Your task to perform on an android device: What is the news today? Image 0: 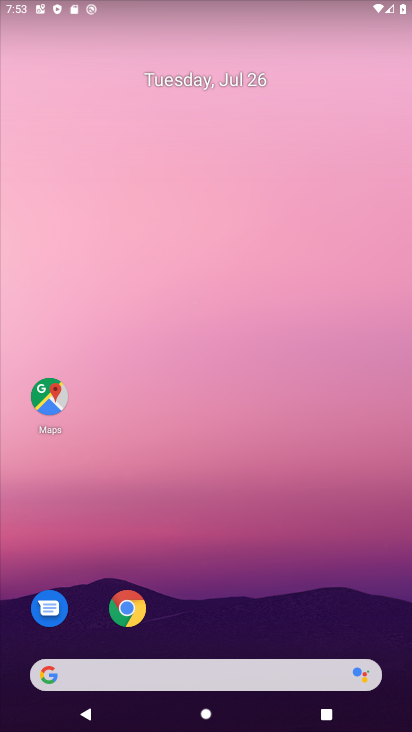
Step 0: click (114, 668)
Your task to perform on an android device: What is the news today? Image 1: 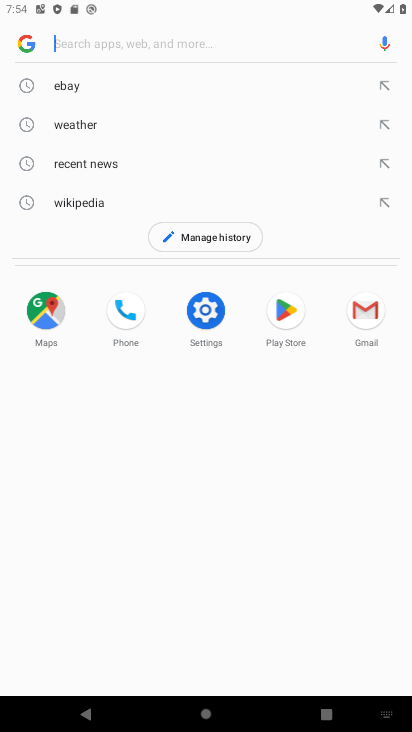
Step 1: type "What is the news today?"
Your task to perform on an android device: What is the news today? Image 2: 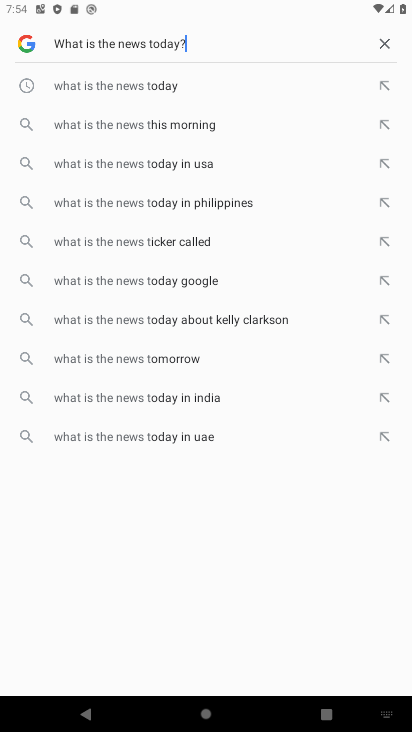
Step 2: type ""
Your task to perform on an android device: What is the news today? Image 3: 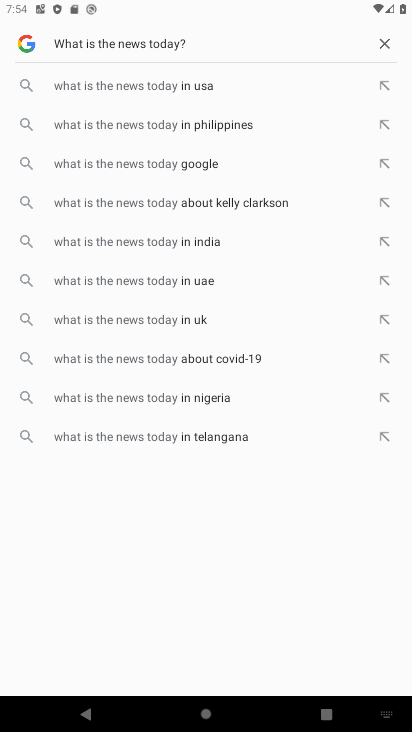
Step 3: type ""
Your task to perform on an android device: What is the news today? Image 4: 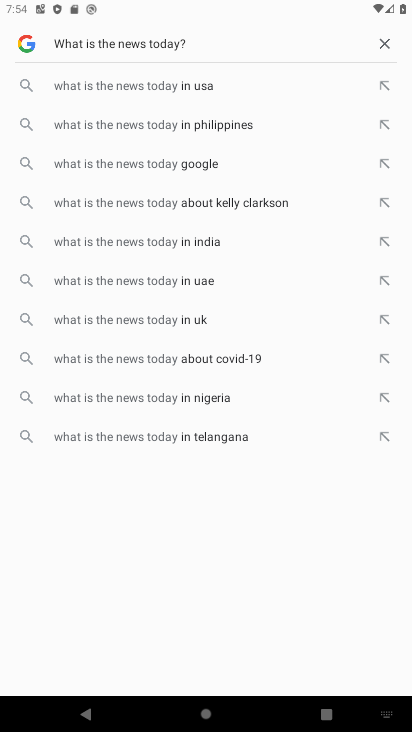
Step 4: type ""
Your task to perform on an android device: What is the news today? Image 5: 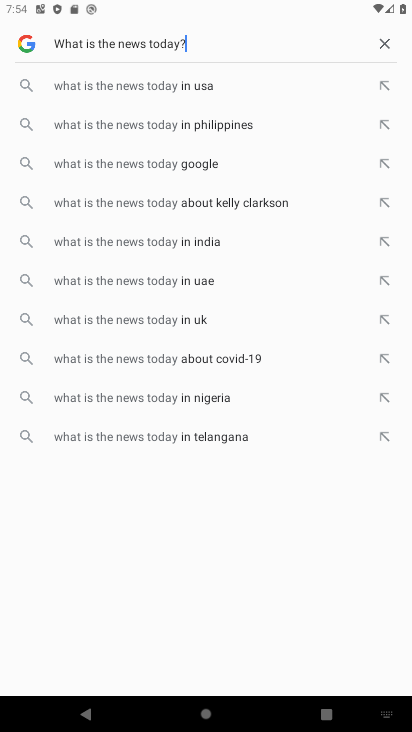
Step 5: task complete